Your task to perform on an android device: change the clock display to digital Image 0: 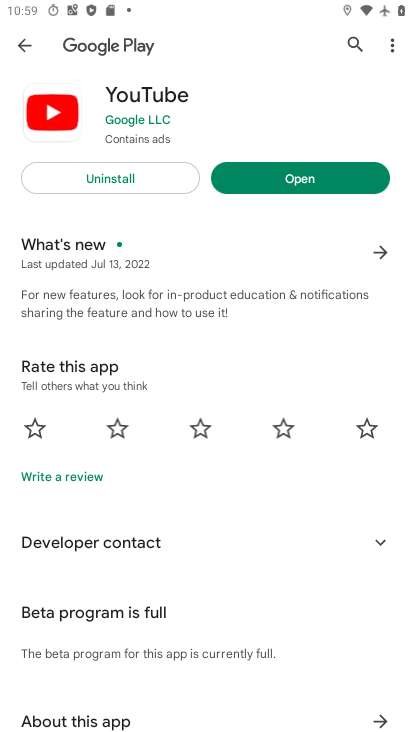
Step 0: press home button
Your task to perform on an android device: change the clock display to digital Image 1: 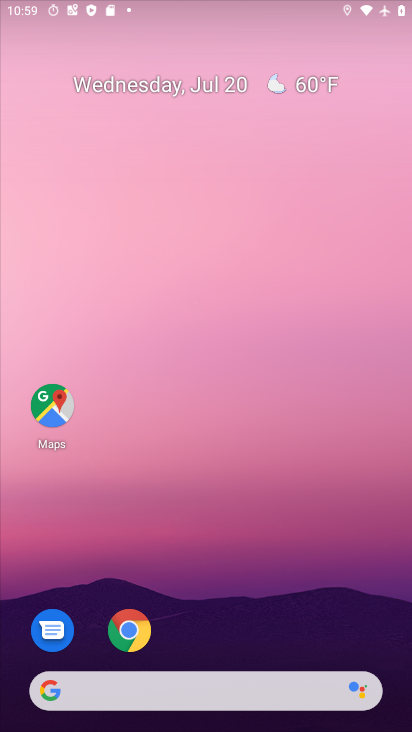
Step 1: drag from (202, 640) to (240, 94)
Your task to perform on an android device: change the clock display to digital Image 2: 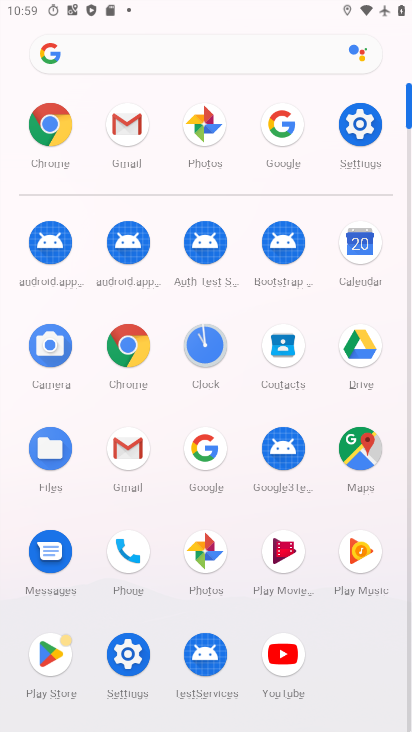
Step 2: click (207, 350)
Your task to perform on an android device: change the clock display to digital Image 3: 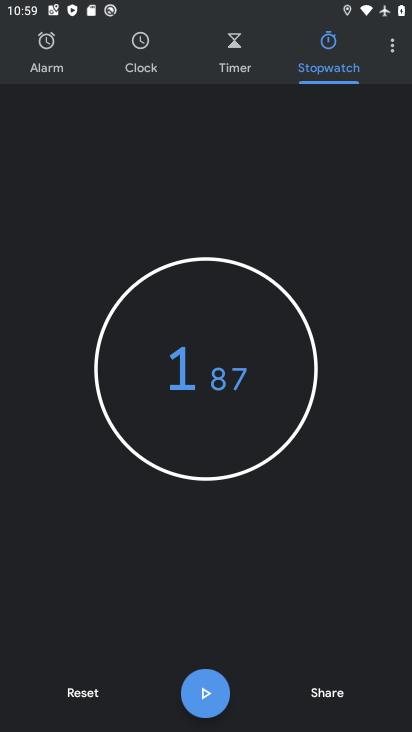
Step 3: click (392, 48)
Your task to perform on an android device: change the clock display to digital Image 4: 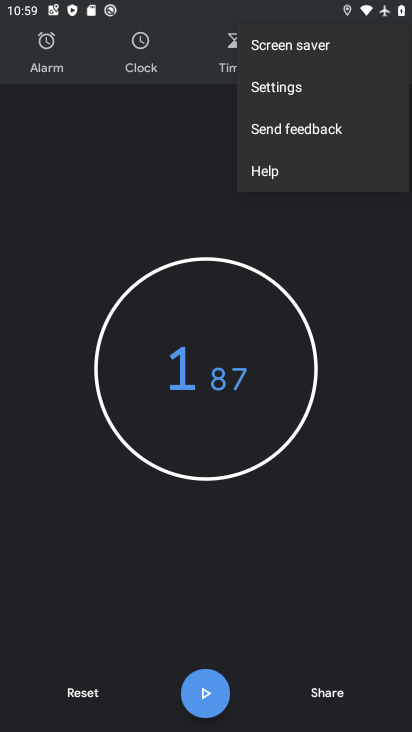
Step 4: click (293, 95)
Your task to perform on an android device: change the clock display to digital Image 5: 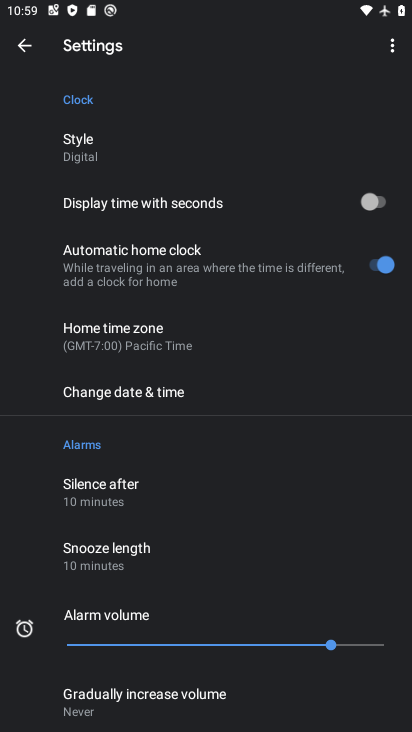
Step 5: task complete